Your task to perform on an android device: Turn on the flashlight Image 0: 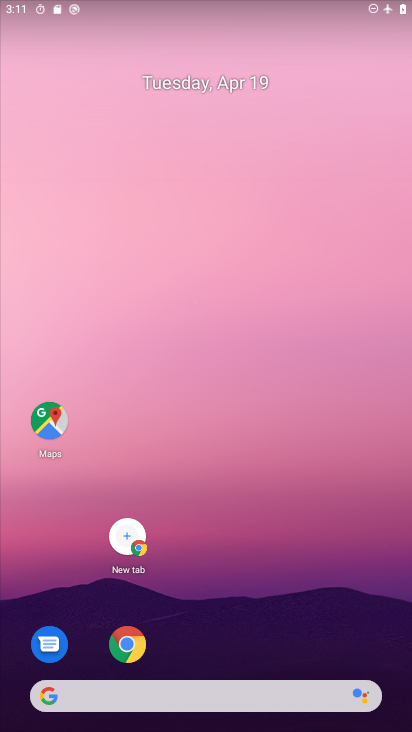
Step 0: drag from (207, 527) to (162, 123)
Your task to perform on an android device: Turn on the flashlight Image 1: 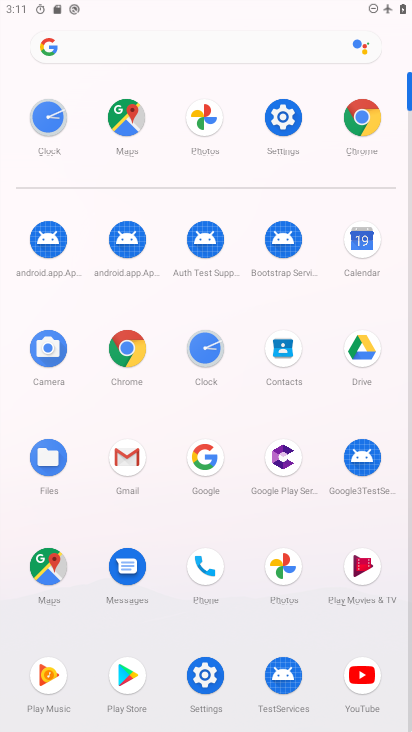
Step 1: click (287, 122)
Your task to perform on an android device: Turn on the flashlight Image 2: 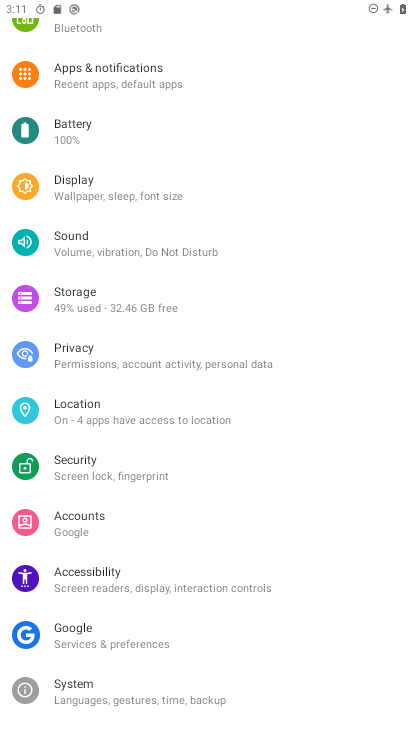
Step 2: drag from (152, 107) to (157, 580)
Your task to perform on an android device: Turn on the flashlight Image 3: 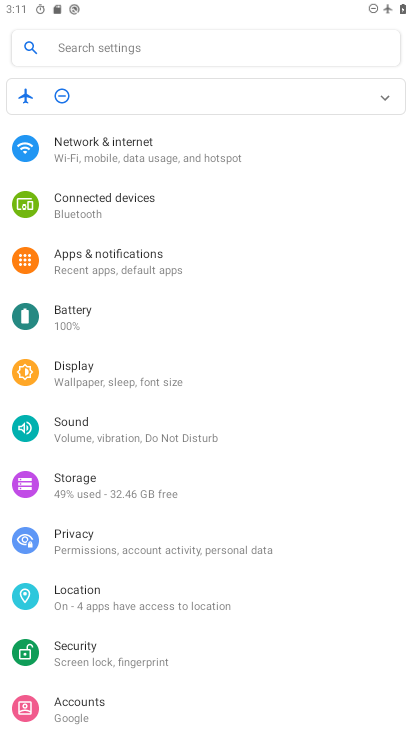
Step 3: click (174, 44)
Your task to perform on an android device: Turn on the flashlight Image 4: 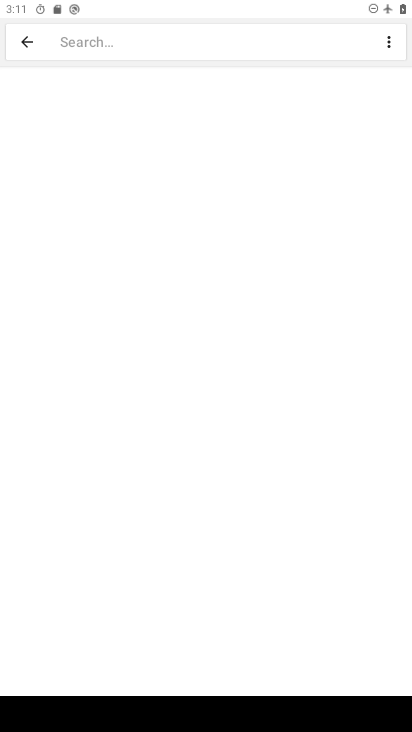
Step 4: click (211, 47)
Your task to perform on an android device: Turn on the flashlight Image 5: 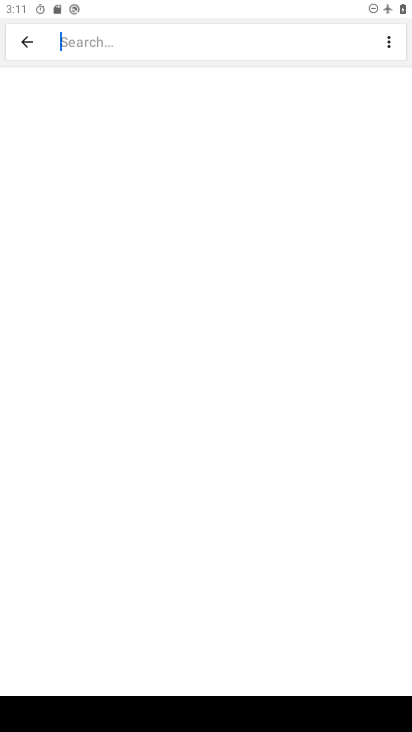
Step 5: type "flashlight"
Your task to perform on an android device: Turn on the flashlight Image 6: 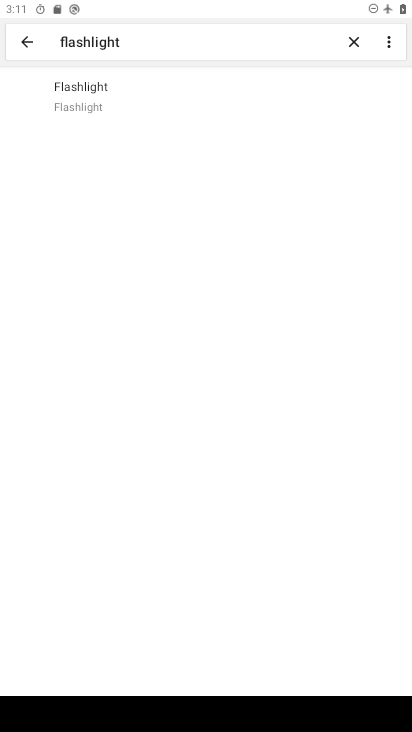
Step 6: click (125, 98)
Your task to perform on an android device: Turn on the flashlight Image 7: 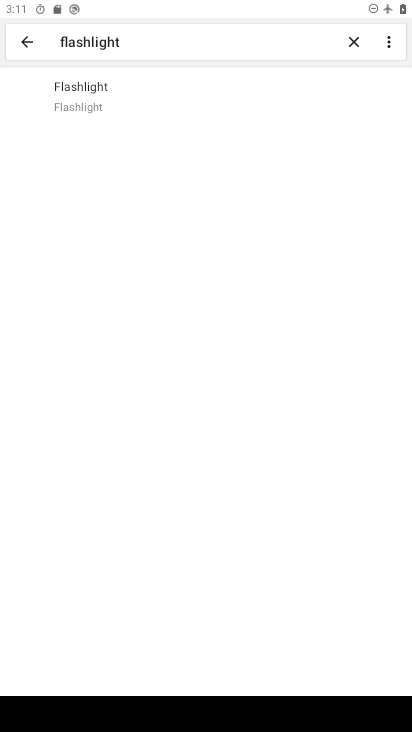
Step 7: click (62, 93)
Your task to perform on an android device: Turn on the flashlight Image 8: 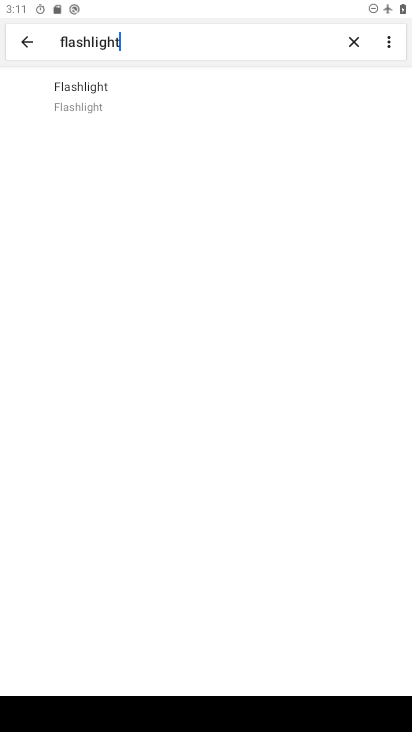
Step 8: click (92, 102)
Your task to perform on an android device: Turn on the flashlight Image 9: 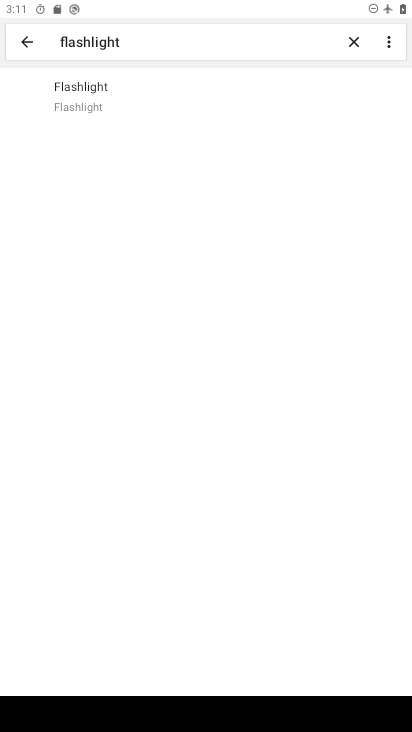
Step 9: click (92, 102)
Your task to perform on an android device: Turn on the flashlight Image 10: 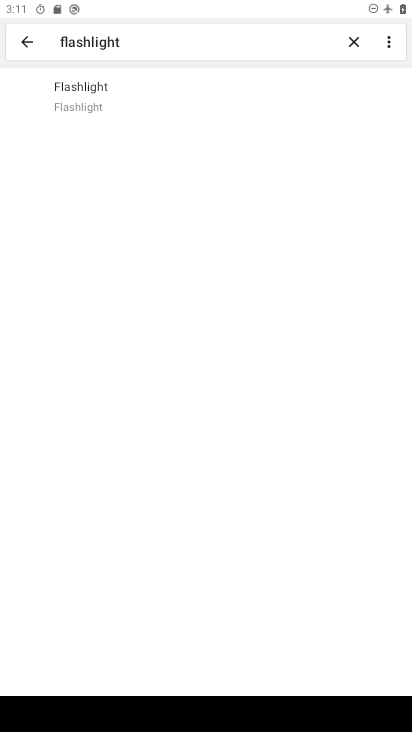
Step 10: task complete